Your task to perform on an android device: turn on javascript in the chrome app Image 0: 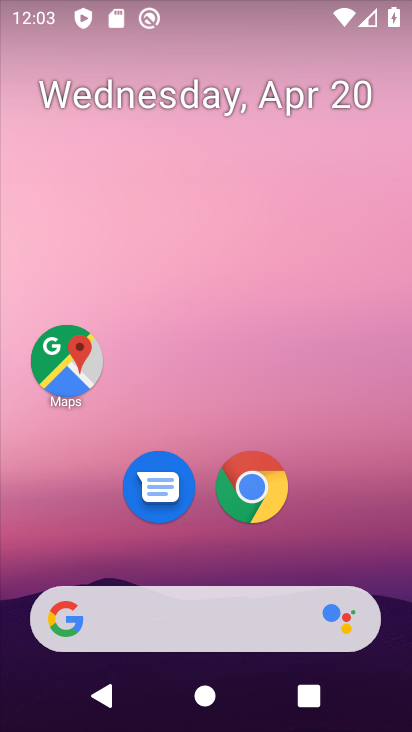
Step 0: drag from (364, 554) to (282, 56)
Your task to perform on an android device: turn on javascript in the chrome app Image 1: 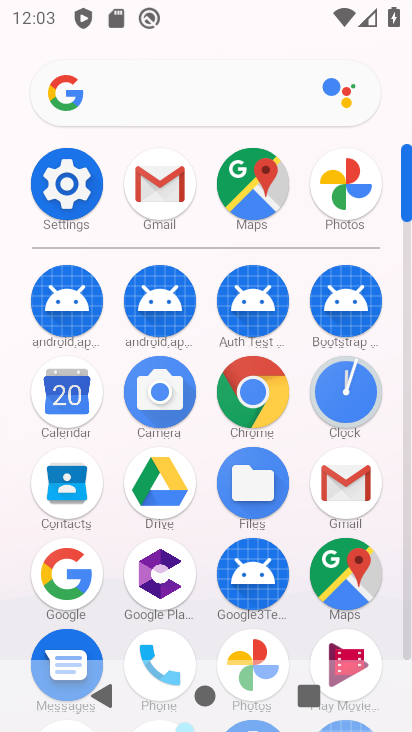
Step 1: click (238, 389)
Your task to perform on an android device: turn on javascript in the chrome app Image 2: 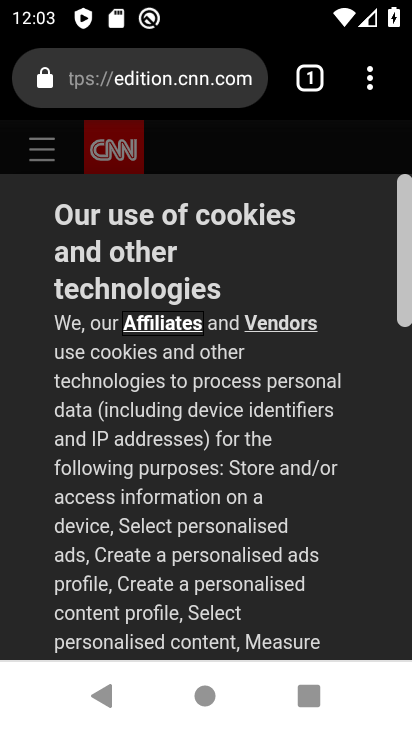
Step 2: press back button
Your task to perform on an android device: turn on javascript in the chrome app Image 3: 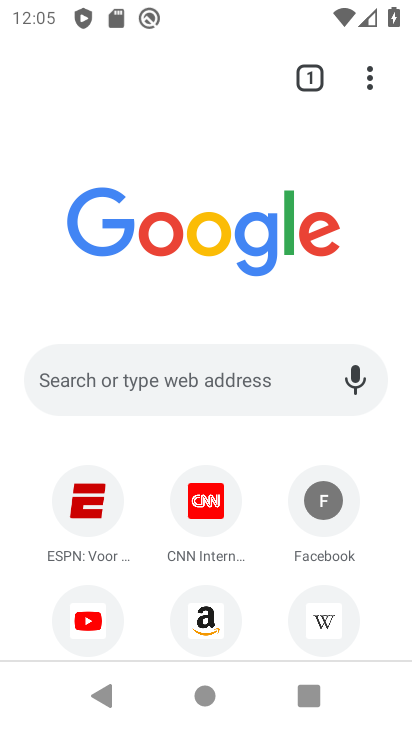
Step 3: click (369, 78)
Your task to perform on an android device: turn on javascript in the chrome app Image 4: 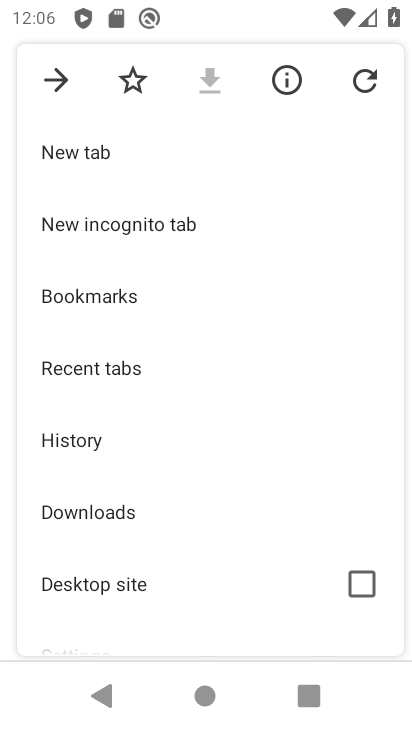
Step 4: drag from (255, 413) to (240, 250)
Your task to perform on an android device: turn on javascript in the chrome app Image 5: 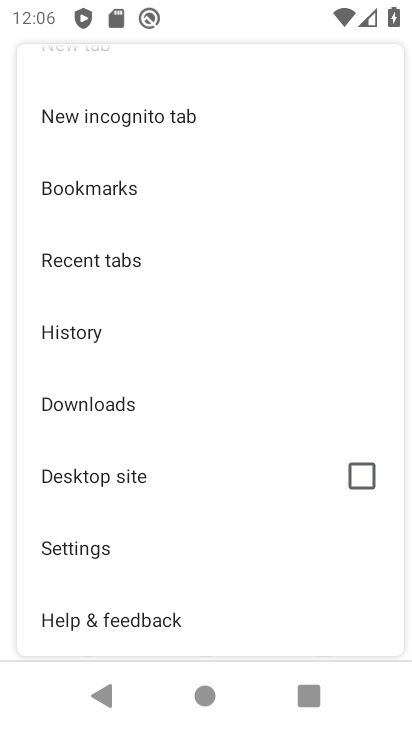
Step 5: click (180, 547)
Your task to perform on an android device: turn on javascript in the chrome app Image 6: 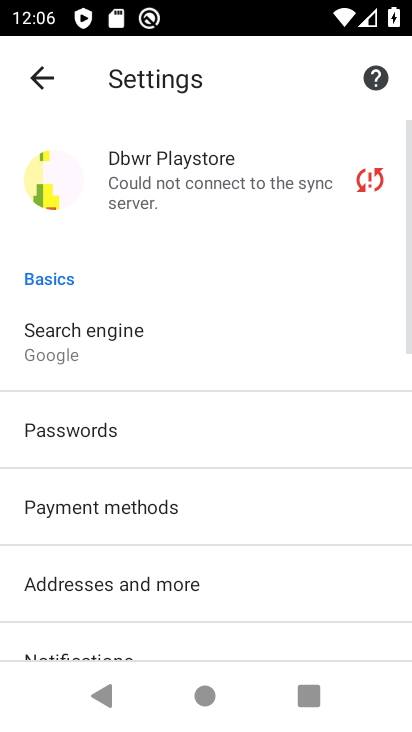
Step 6: drag from (143, 600) to (167, 151)
Your task to perform on an android device: turn on javascript in the chrome app Image 7: 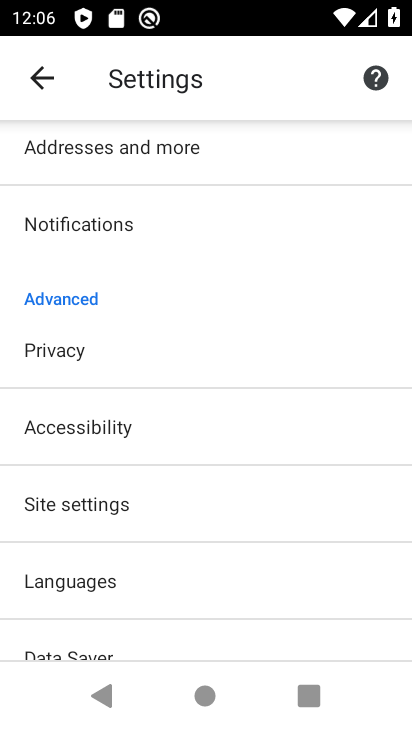
Step 7: click (144, 523)
Your task to perform on an android device: turn on javascript in the chrome app Image 8: 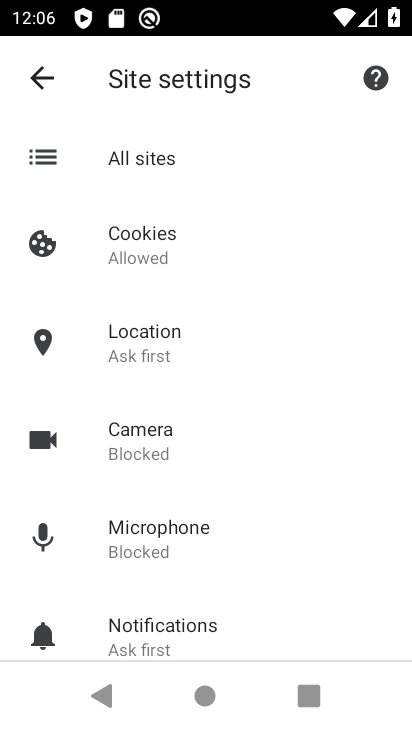
Step 8: drag from (143, 537) to (158, 230)
Your task to perform on an android device: turn on javascript in the chrome app Image 9: 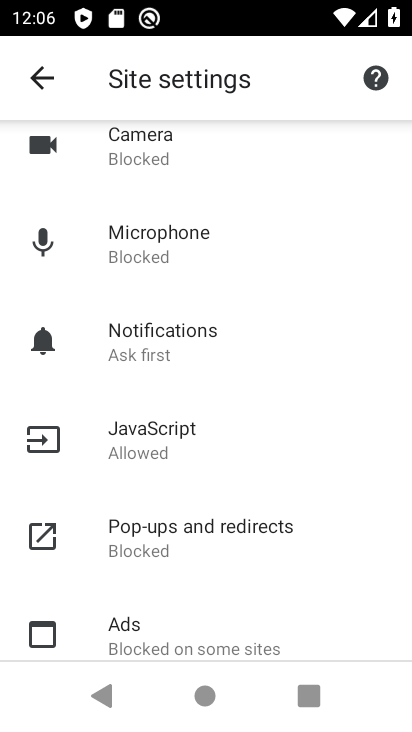
Step 9: click (168, 437)
Your task to perform on an android device: turn on javascript in the chrome app Image 10: 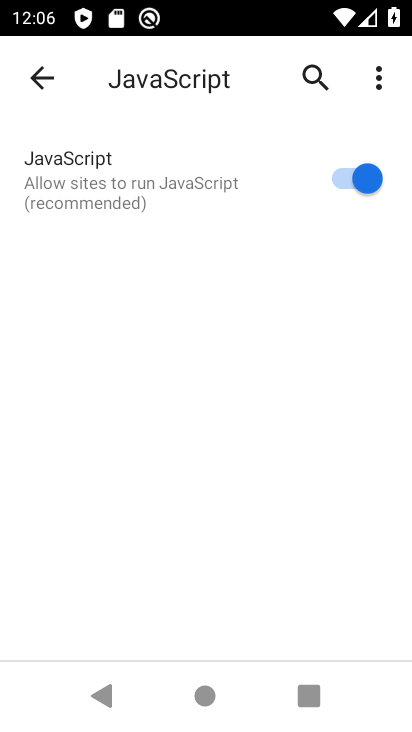
Step 10: task complete